Your task to perform on an android device: Toggle the flashlight Image 0: 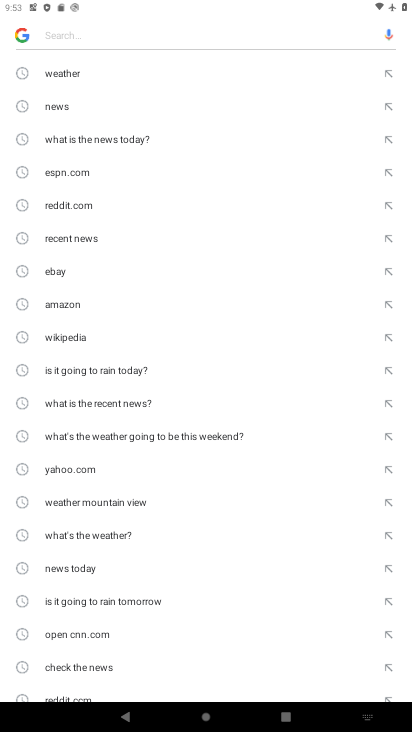
Step 0: press home button
Your task to perform on an android device: Toggle the flashlight Image 1: 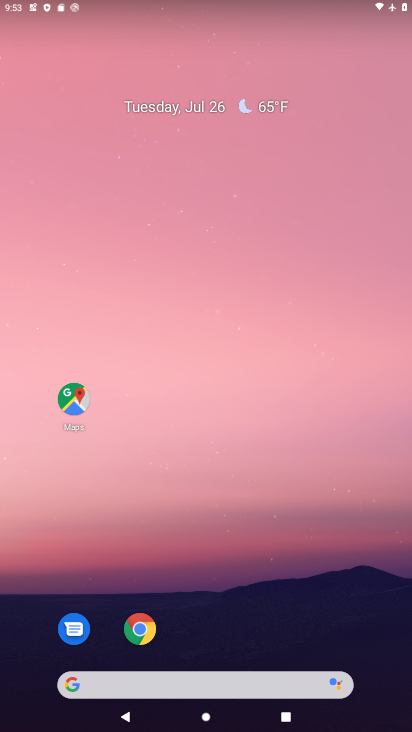
Step 1: drag from (305, 617) to (306, 51)
Your task to perform on an android device: Toggle the flashlight Image 2: 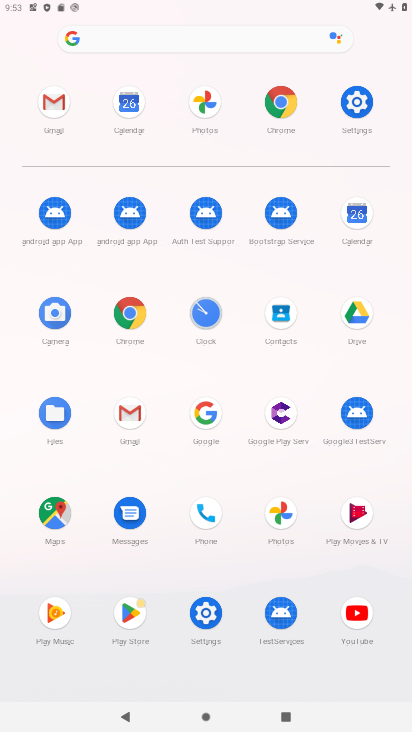
Step 2: click (354, 102)
Your task to perform on an android device: Toggle the flashlight Image 3: 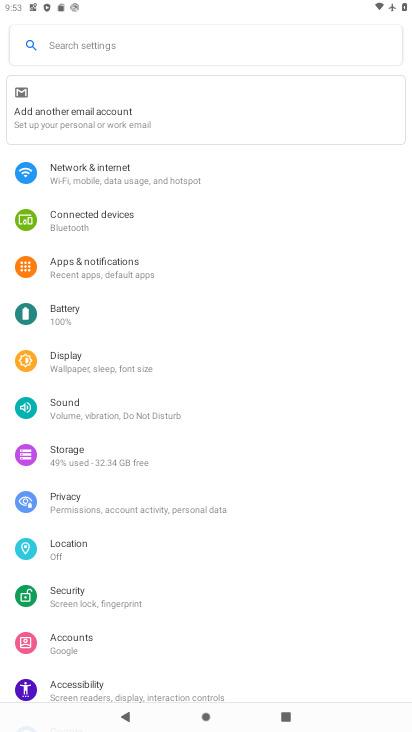
Step 3: click (96, 371)
Your task to perform on an android device: Toggle the flashlight Image 4: 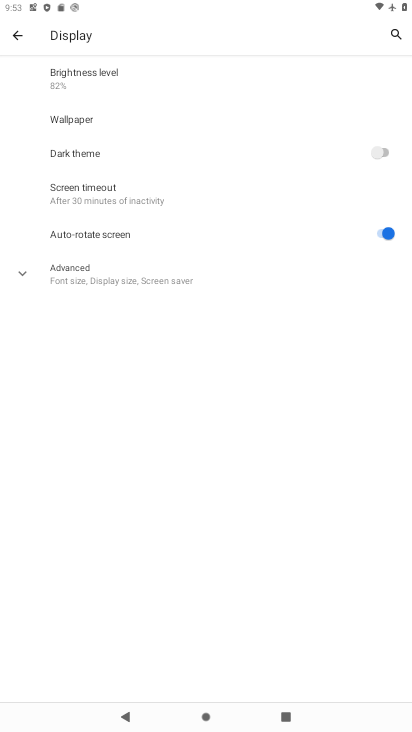
Step 4: click (137, 202)
Your task to perform on an android device: Toggle the flashlight Image 5: 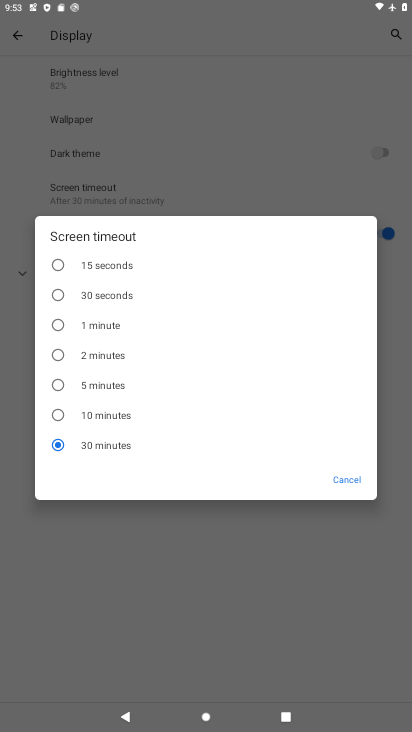
Step 5: task complete